Your task to perform on an android device: turn on bluetooth scan Image 0: 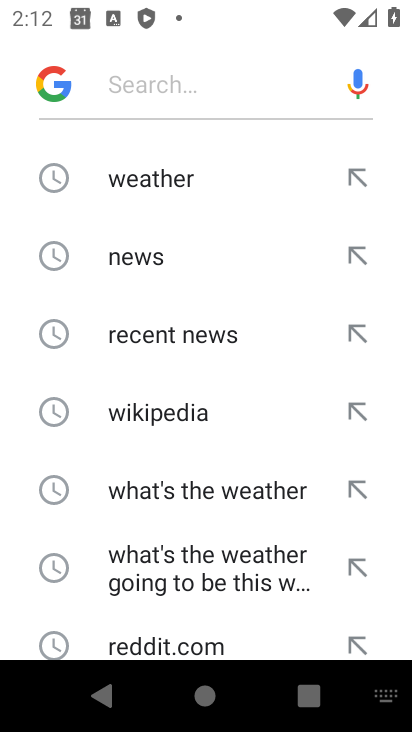
Step 0: press home button
Your task to perform on an android device: turn on bluetooth scan Image 1: 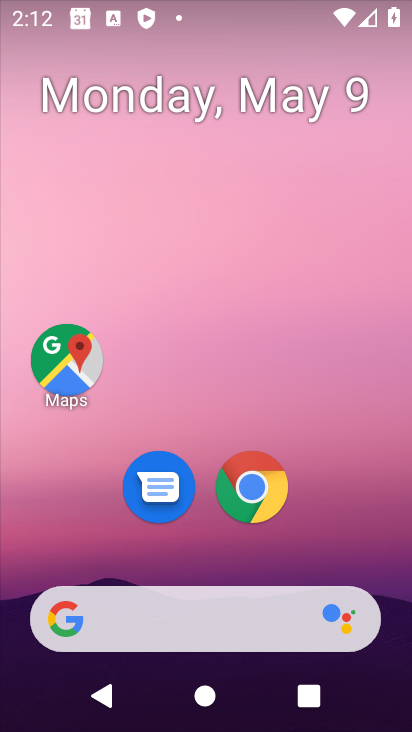
Step 1: drag from (323, 510) to (284, 61)
Your task to perform on an android device: turn on bluetooth scan Image 2: 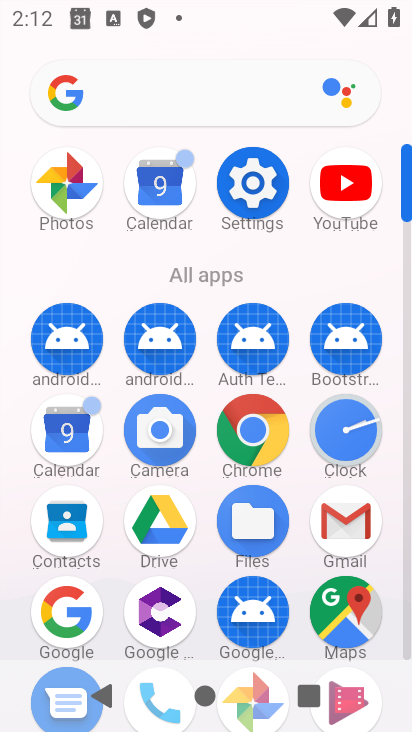
Step 2: click (255, 194)
Your task to perform on an android device: turn on bluetooth scan Image 3: 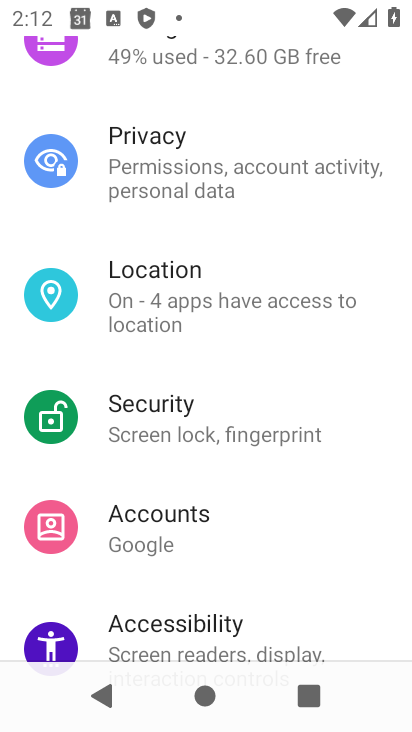
Step 3: drag from (269, 578) to (276, 515)
Your task to perform on an android device: turn on bluetooth scan Image 4: 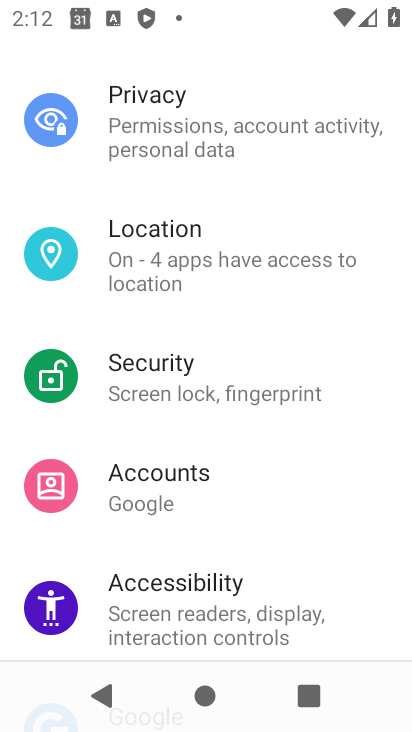
Step 4: click (253, 280)
Your task to perform on an android device: turn on bluetooth scan Image 5: 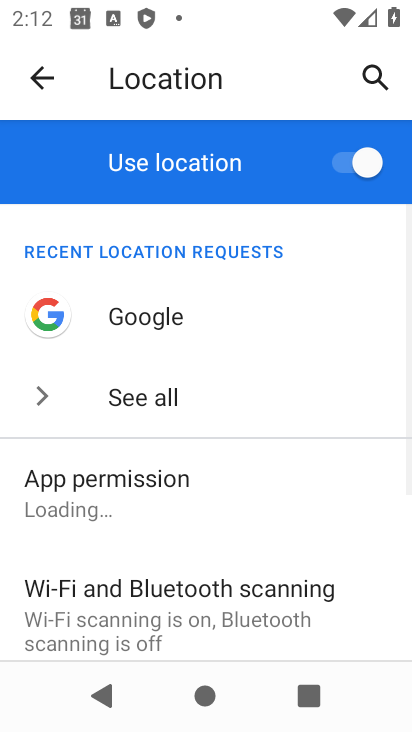
Step 5: click (282, 595)
Your task to perform on an android device: turn on bluetooth scan Image 6: 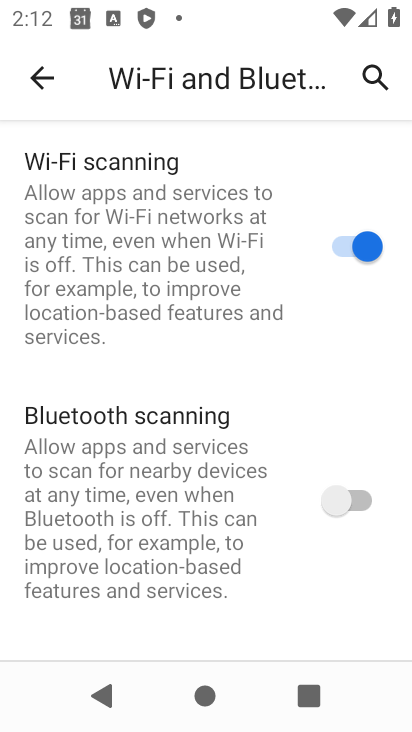
Step 6: click (359, 482)
Your task to perform on an android device: turn on bluetooth scan Image 7: 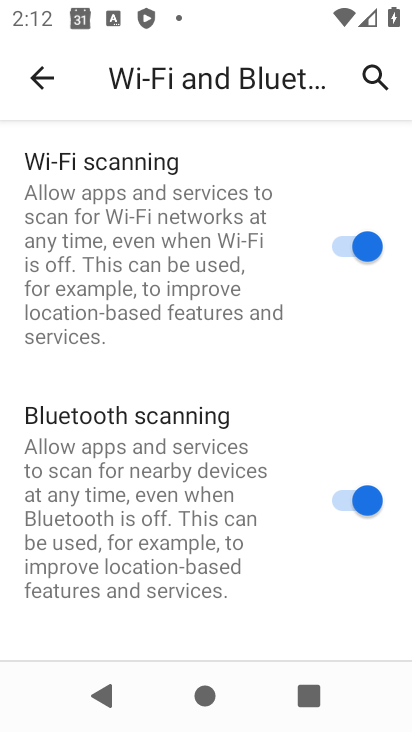
Step 7: task complete